Your task to perform on an android device: Open the stopwatch Image 0: 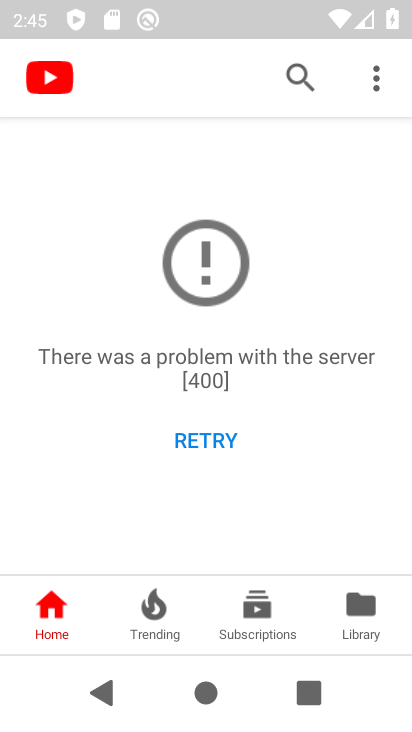
Step 0: press back button
Your task to perform on an android device: Open the stopwatch Image 1: 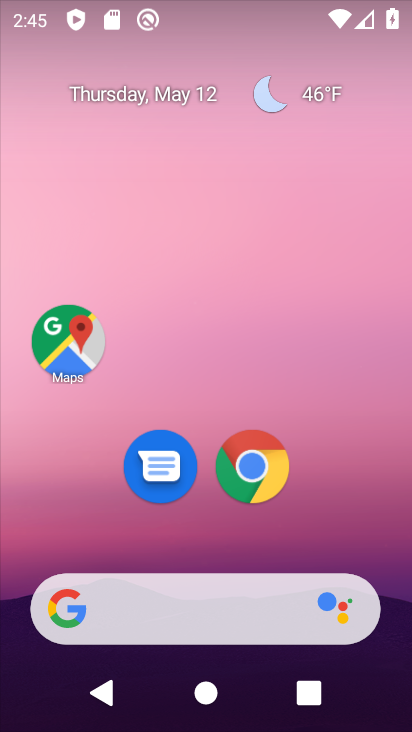
Step 1: drag from (341, 494) to (243, 27)
Your task to perform on an android device: Open the stopwatch Image 2: 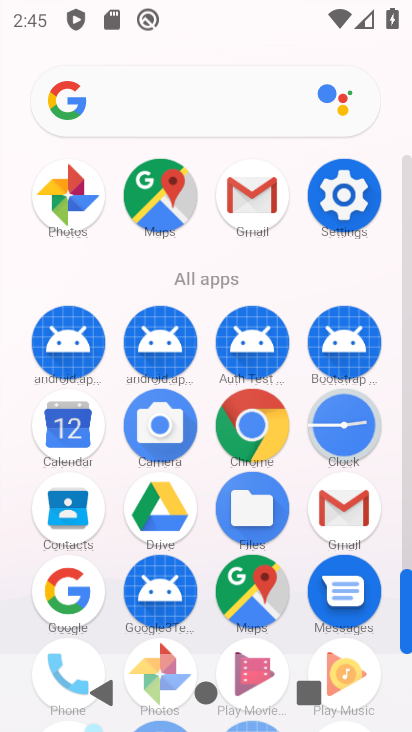
Step 2: drag from (14, 488) to (24, 183)
Your task to perform on an android device: Open the stopwatch Image 3: 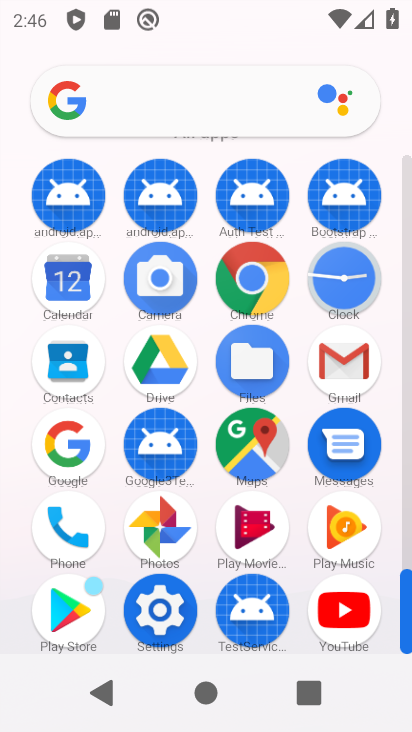
Step 3: click (346, 276)
Your task to perform on an android device: Open the stopwatch Image 4: 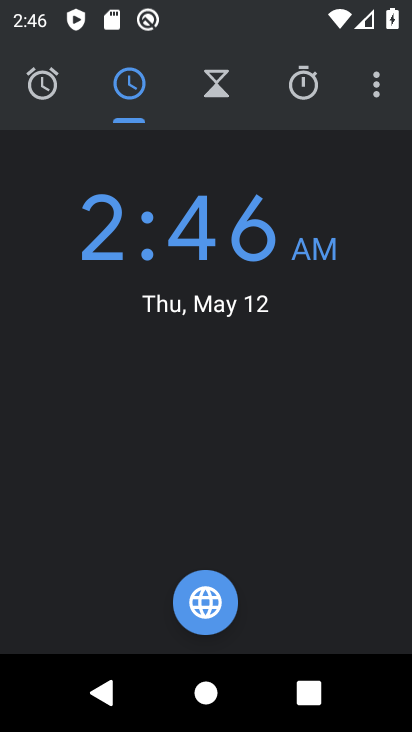
Step 4: click (302, 74)
Your task to perform on an android device: Open the stopwatch Image 5: 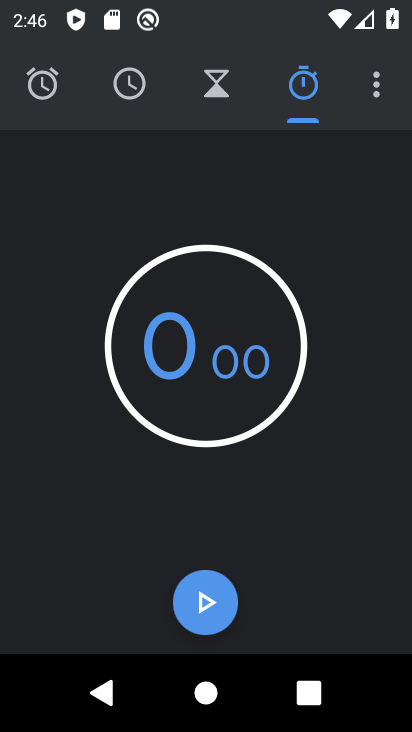
Step 5: task complete